Your task to perform on an android device: What's the weather? Image 0: 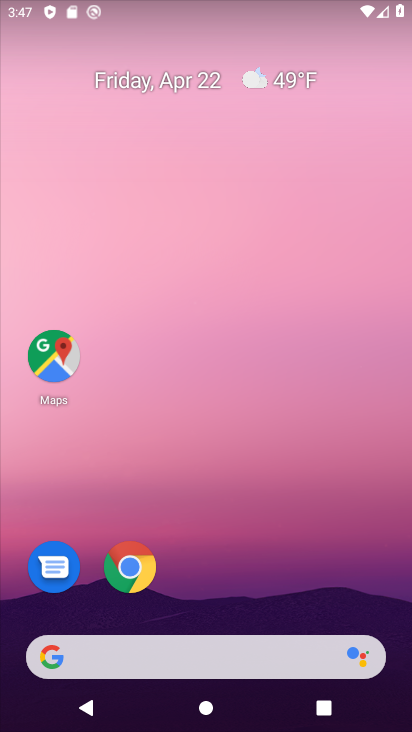
Step 0: click (262, 79)
Your task to perform on an android device: What's the weather? Image 1: 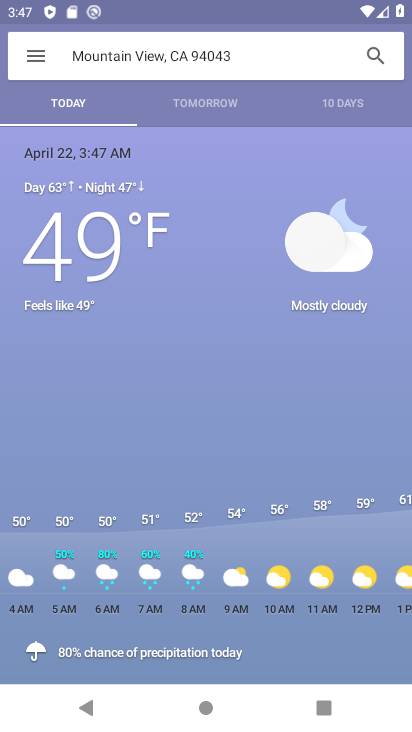
Step 1: task complete